Your task to perform on an android device: Search for "sony triple a" on bestbuy.com, select the first entry, add it to the cart, then select checkout. Image 0: 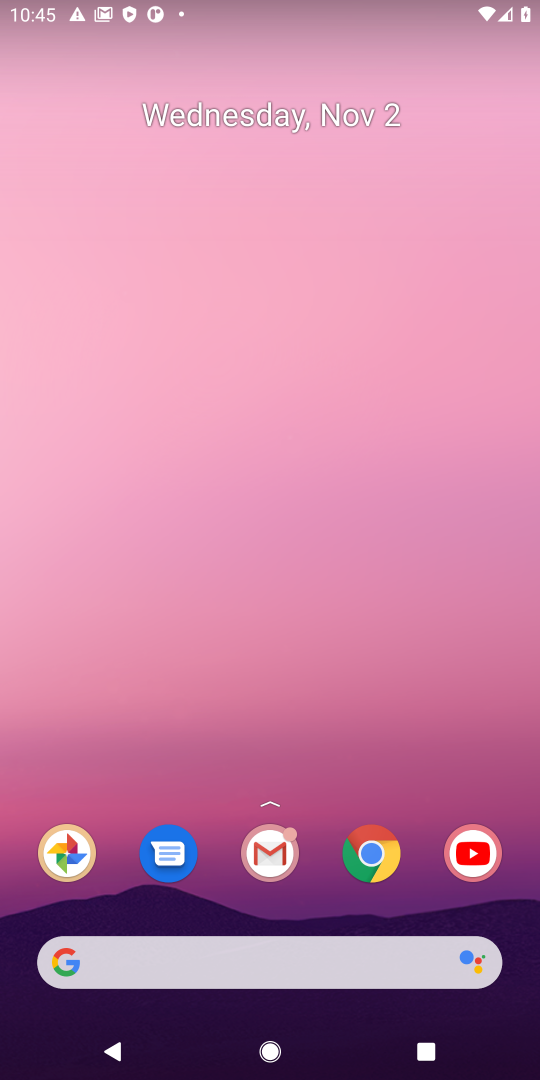
Step 0: click (377, 843)
Your task to perform on an android device: Search for "sony triple a" on bestbuy.com, select the first entry, add it to the cart, then select checkout. Image 1: 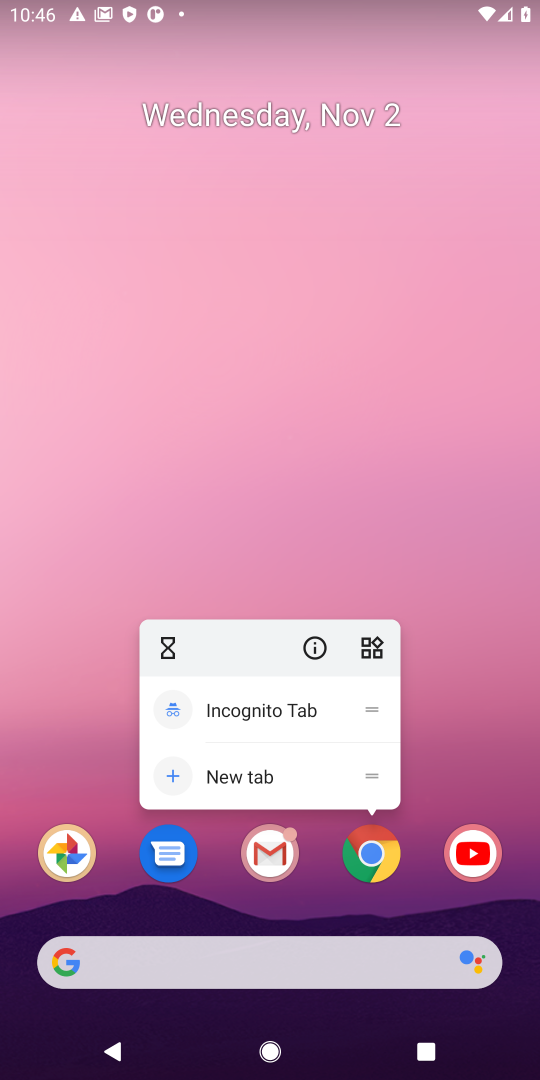
Step 1: click (377, 846)
Your task to perform on an android device: Search for "sony triple a" on bestbuy.com, select the first entry, add it to the cart, then select checkout. Image 2: 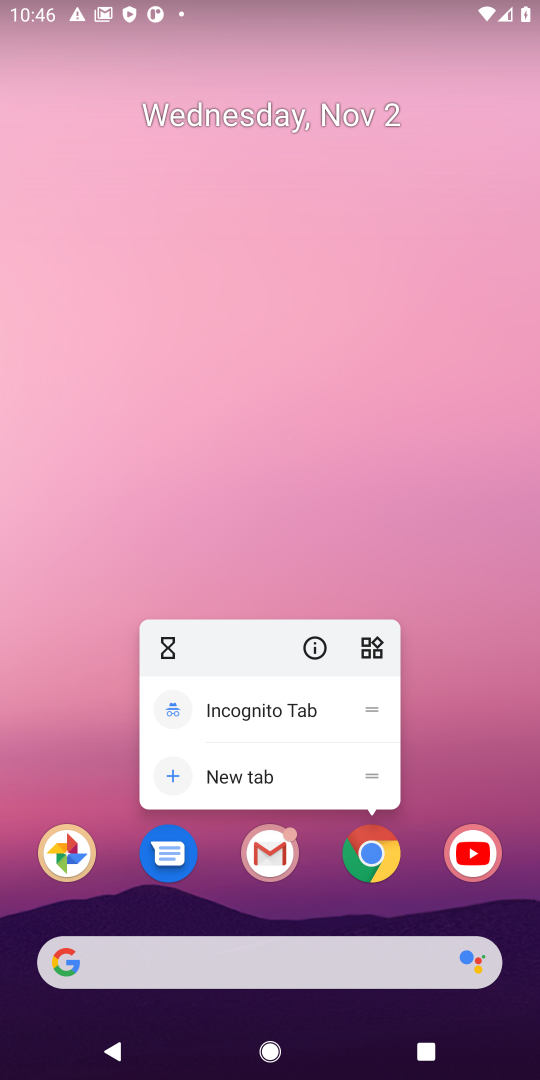
Step 2: click (366, 860)
Your task to perform on an android device: Search for "sony triple a" on bestbuy.com, select the first entry, add it to the cart, then select checkout. Image 3: 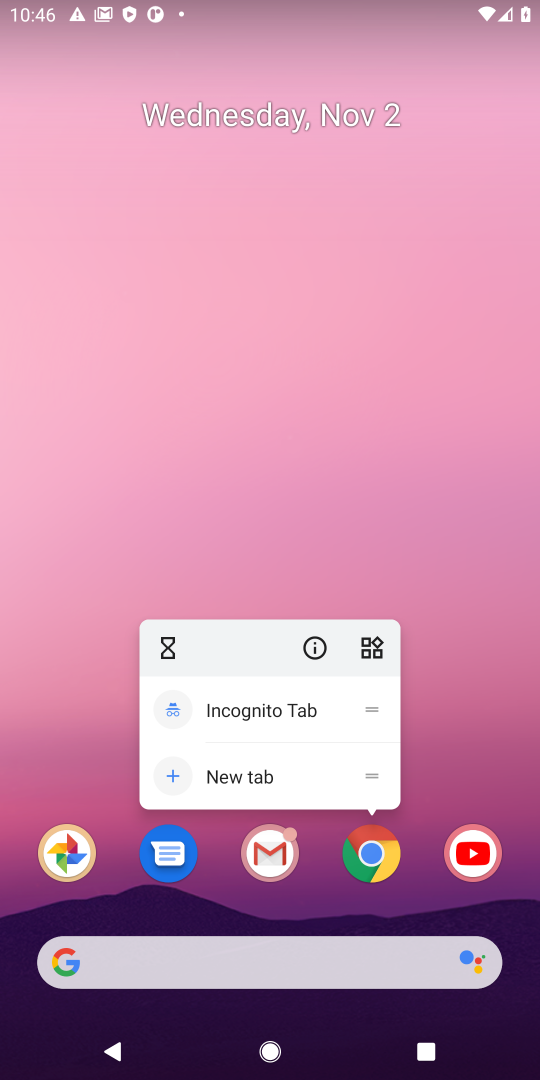
Step 3: click (366, 861)
Your task to perform on an android device: Search for "sony triple a" on bestbuy.com, select the first entry, add it to the cart, then select checkout. Image 4: 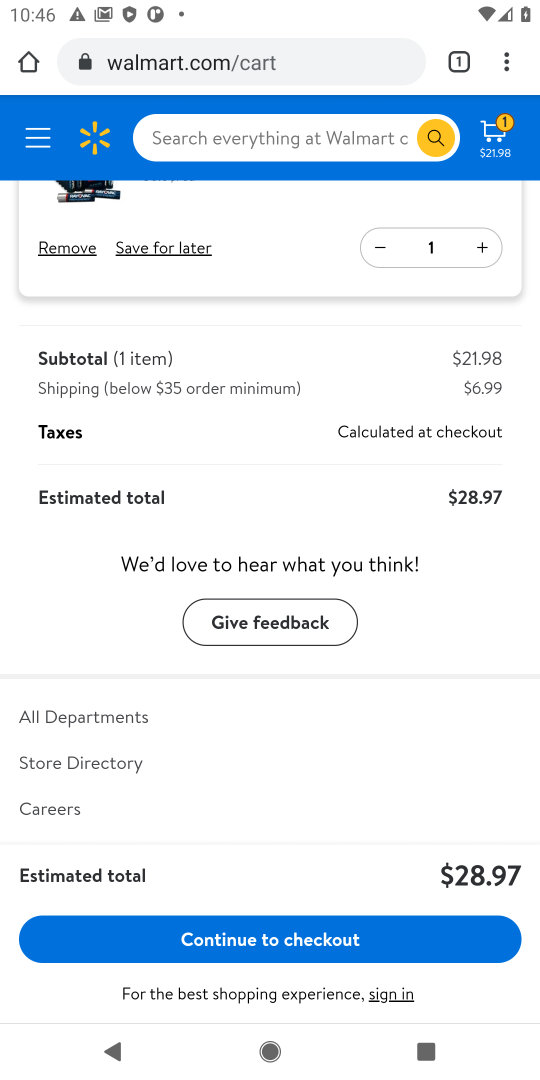
Step 4: click (309, 65)
Your task to perform on an android device: Search for "sony triple a" on bestbuy.com, select the first entry, add it to the cart, then select checkout. Image 5: 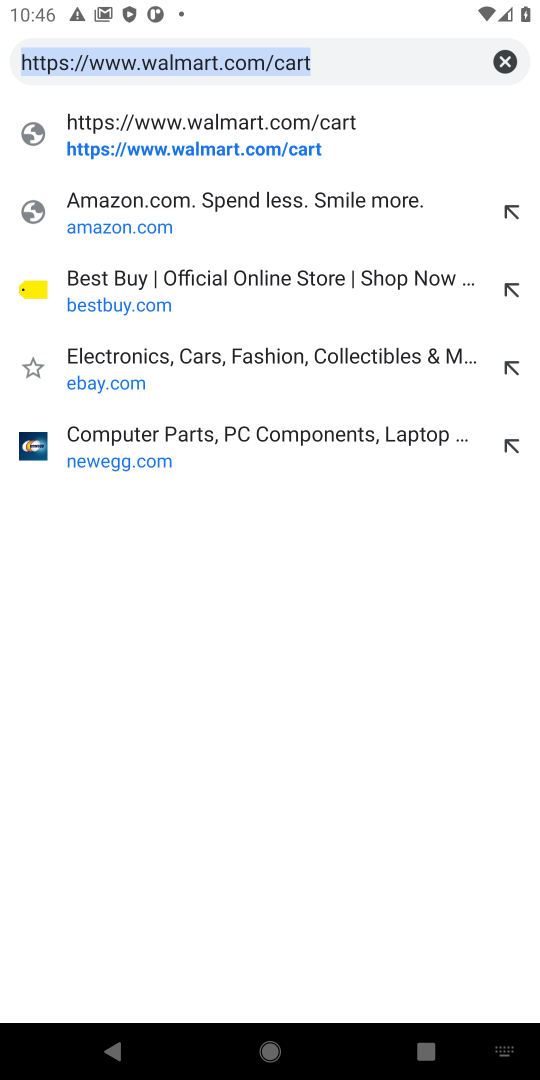
Step 5: click (496, 56)
Your task to perform on an android device: Search for "sony triple a" on bestbuy.com, select the first entry, add it to the cart, then select checkout. Image 6: 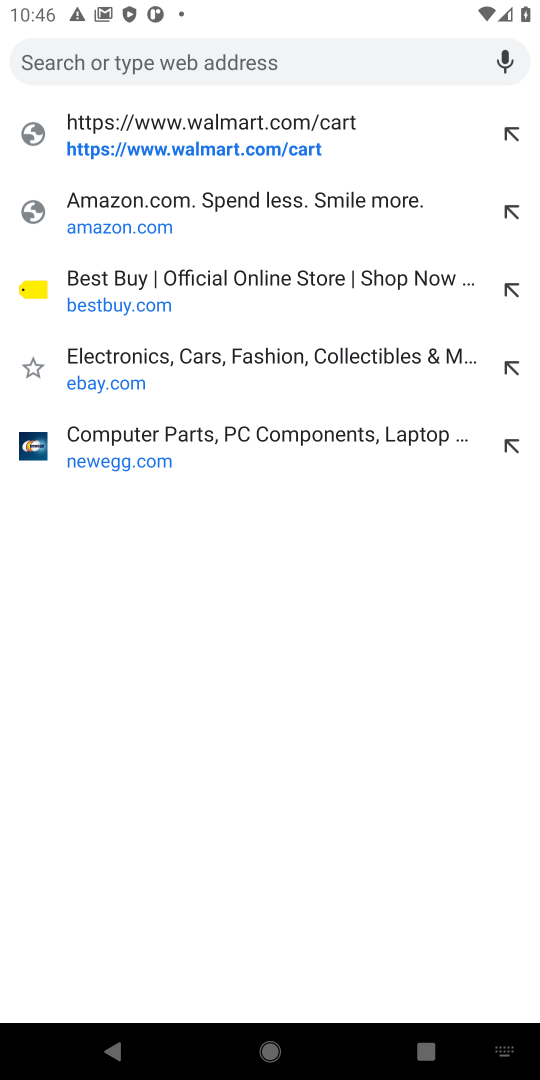
Step 6: click (94, 296)
Your task to perform on an android device: Search for "sony triple a" on bestbuy.com, select the first entry, add it to the cart, then select checkout. Image 7: 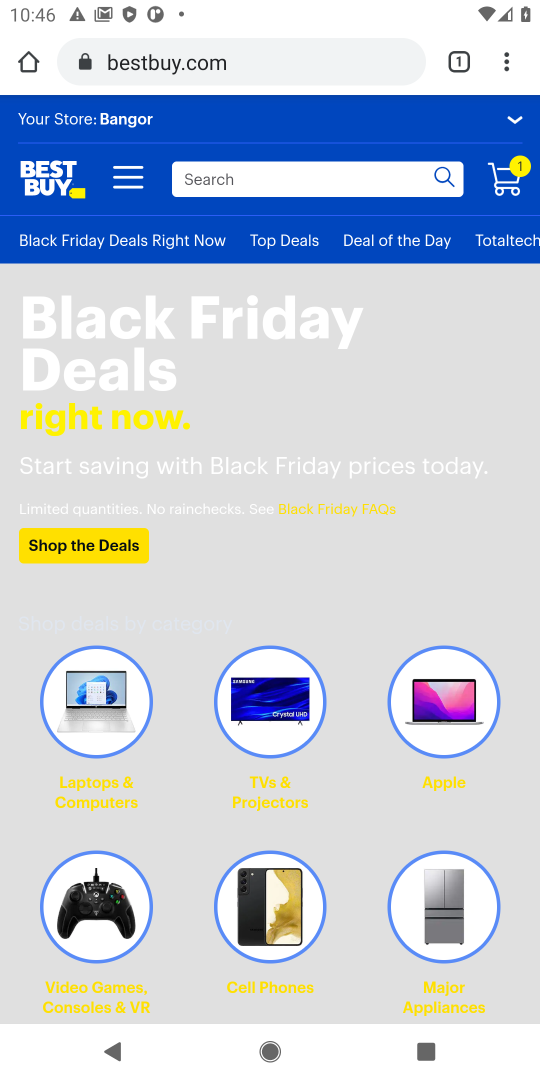
Step 7: click (239, 178)
Your task to perform on an android device: Search for "sony triple a" on bestbuy.com, select the first entry, add it to the cart, then select checkout. Image 8: 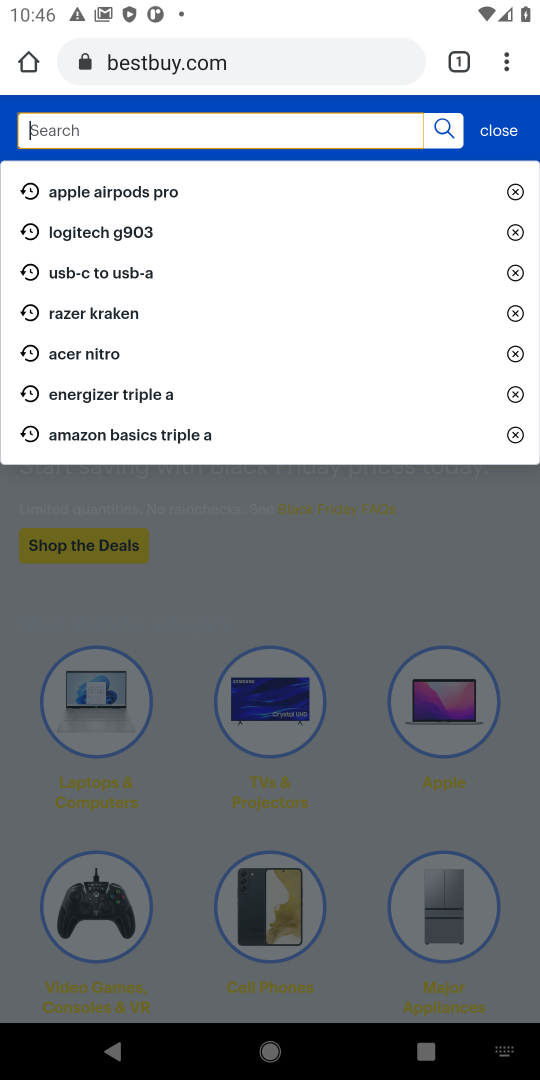
Step 8: type "sony triple a"
Your task to perform on an android device: Search for "sony triple a" on bestbuy.com, select the first entry, add it to the cart, then select checkout. Image 9: 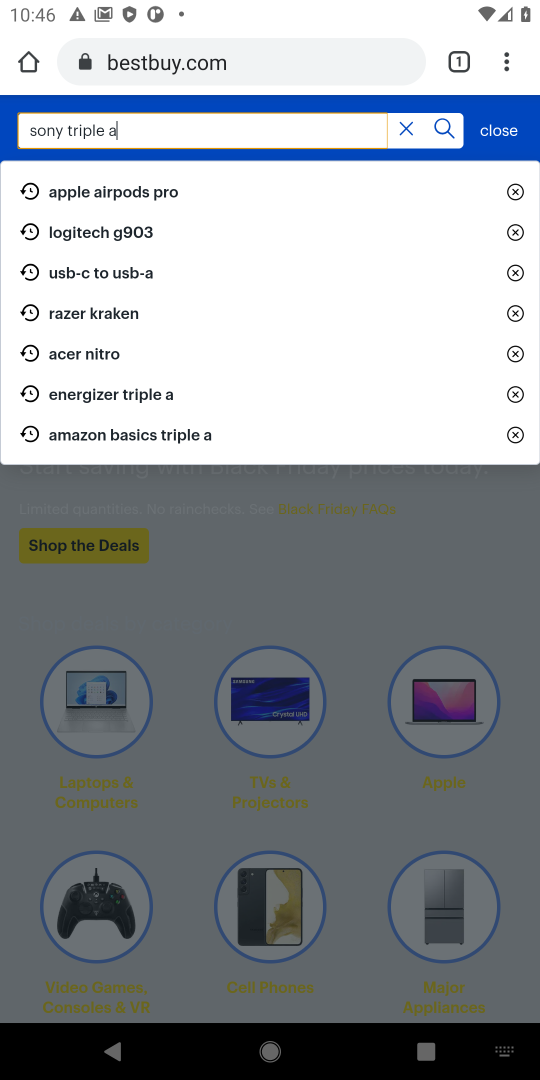
Step 9: press enter
Your task to perform on an android device: Search for "sony triple a" on bestbuy.com, select the first entry, add it to the cart, then select checkout. Image 10: 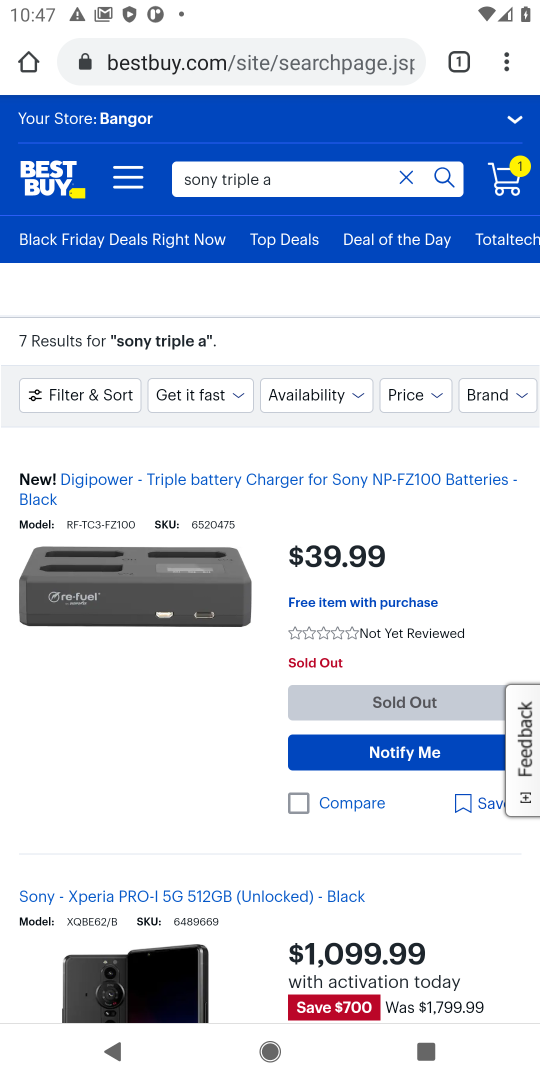
Step 10: task complete